Your task to perform on an android device: empty trash in the gmail app Image 0: 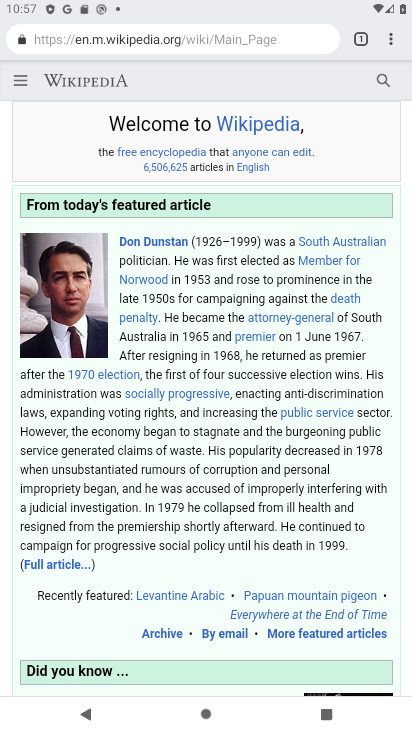
Step 0: press home button
Your task to perform on an android device: empty trash in the gmail app Image 1: 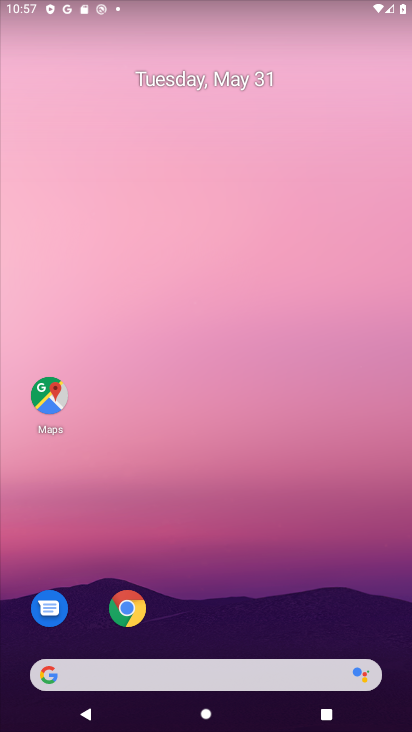
Step 1: drag from (186, 615) to (284, 179)
Your task to perform on an android device: empty trash in the gmail app Image 2: 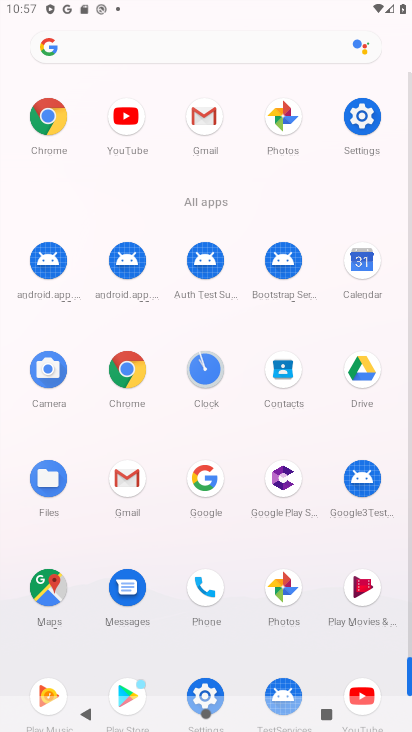
Step 2: click (201, 114)
Your task to perform on an android device: empty trash in the gmail app Image 3: 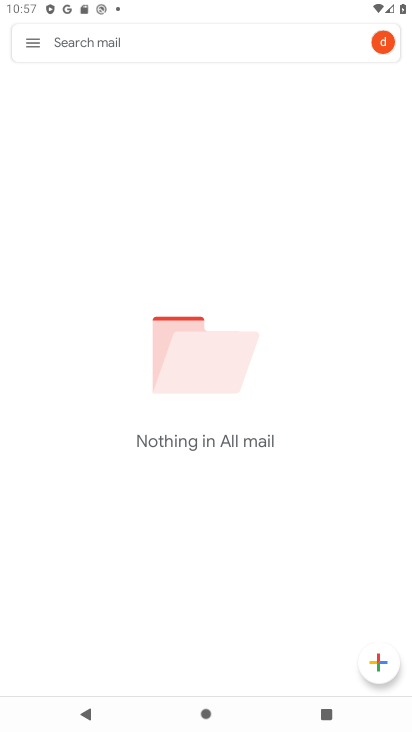
Step 3: click (32, 45)
Your task to perform on an android device: empty trash in the gmail app Image 4: 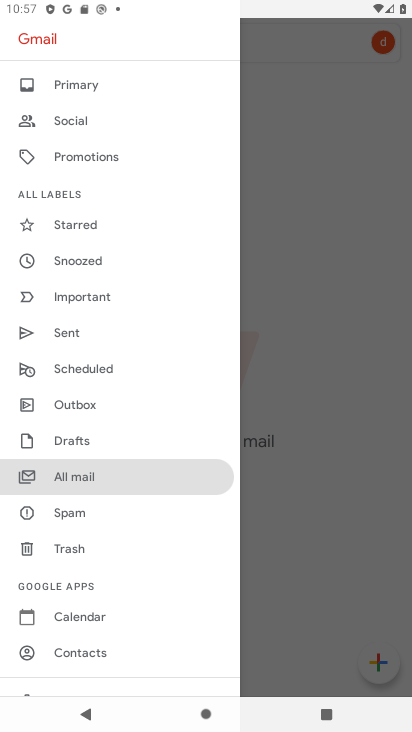
Step 4: click (63, 552)
Your task to perform on an android device: empty trash in the gmail app Image 5: 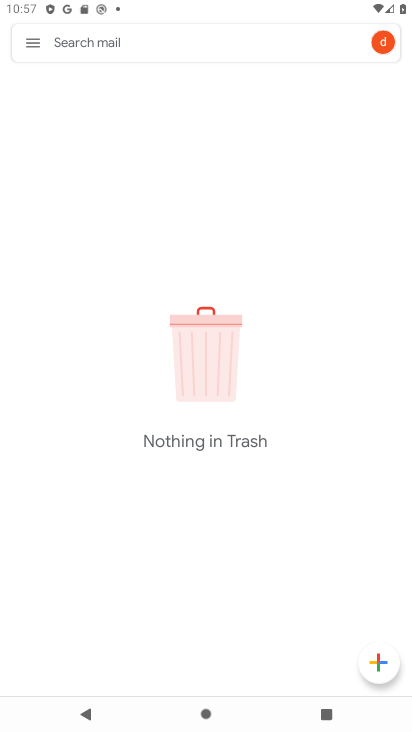
Step 5: task complete